Your task to perform on an android device: turn pop-ups on in chrome Image 0: 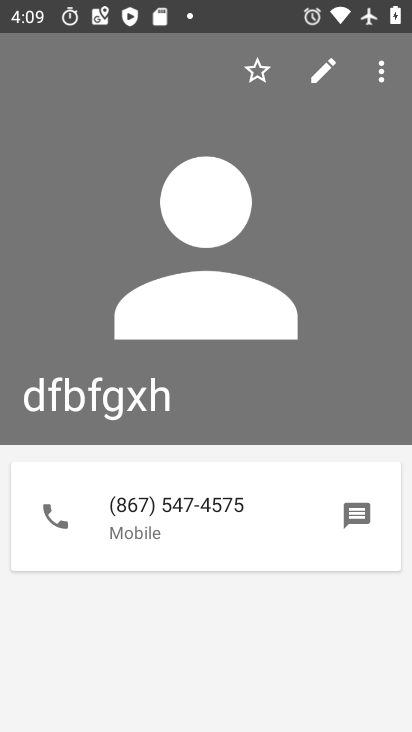
Step 0: press home button
Your task to perform on an android device: turn pop-ups on in chrome Image 1: 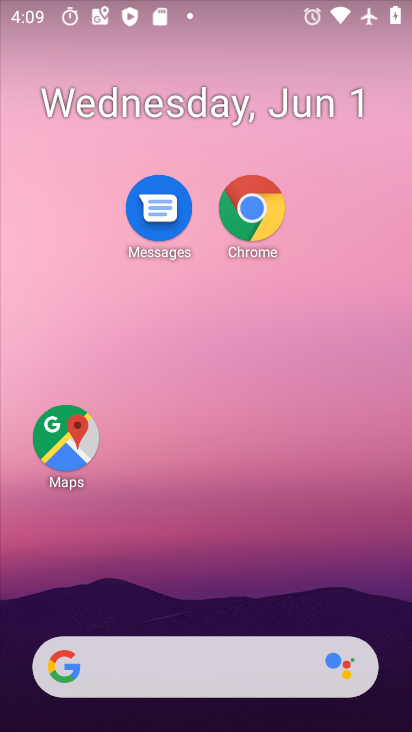
Step 1: click (238, 226)
Your task to perform on an android device: turn pop-ups on in chrome Image 2: 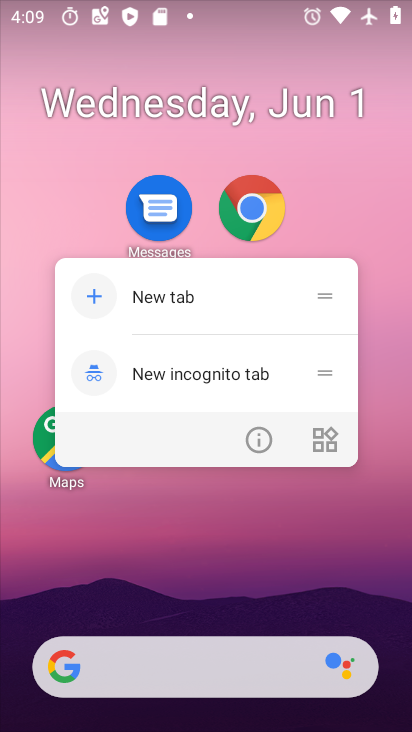
Step 2: click (269, 217)
Your task to perform on an android device: turn pop-ups on in chrome Image 3: 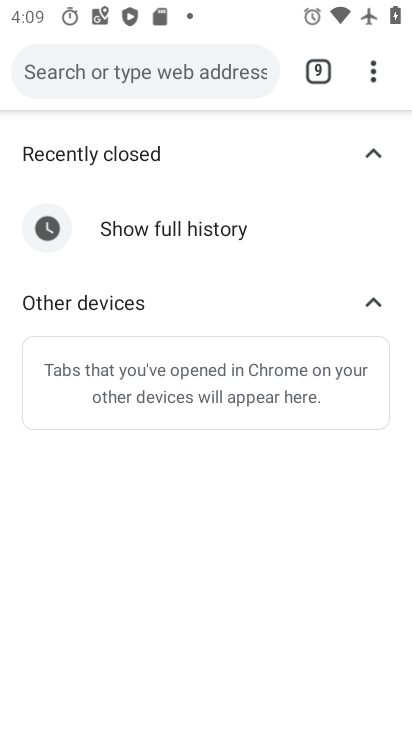
Step 3: drag from (371, 70) to (133, 580)
Your task to perform on an android device: turn pop-ups on in chrome Image 4: 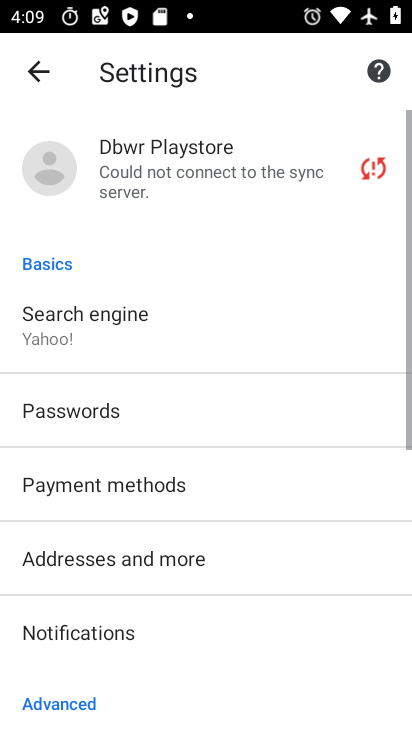
Step 4: drag from (208, 650) to (222, 285)
Your task to perform on an android device: turn pop-ups on in chrome Image 5: 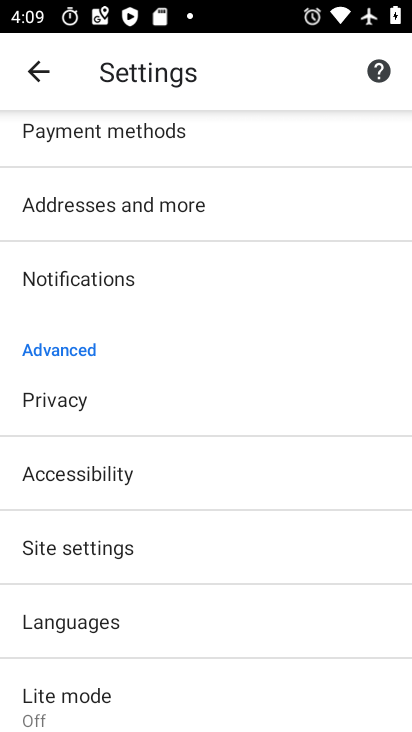
Step 5: click (129, 535)
Your task to perform on an android device: turn pop-ups on in chrome Image 6: 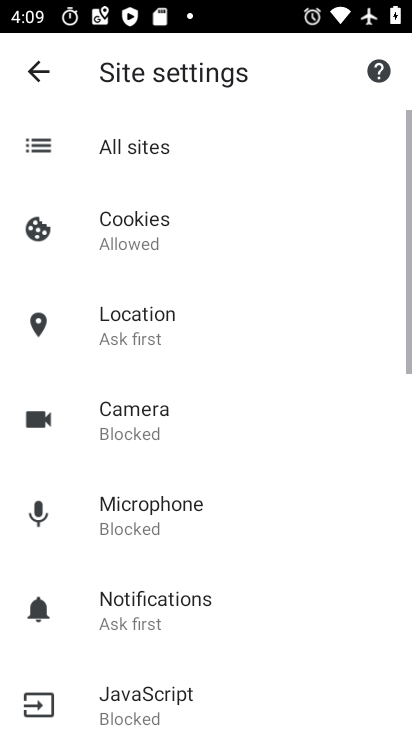
Step 6: drag from (168, 602) to (189, 263)
Your task to perform on an android device: turn pop-ups on in chrome Image 7: 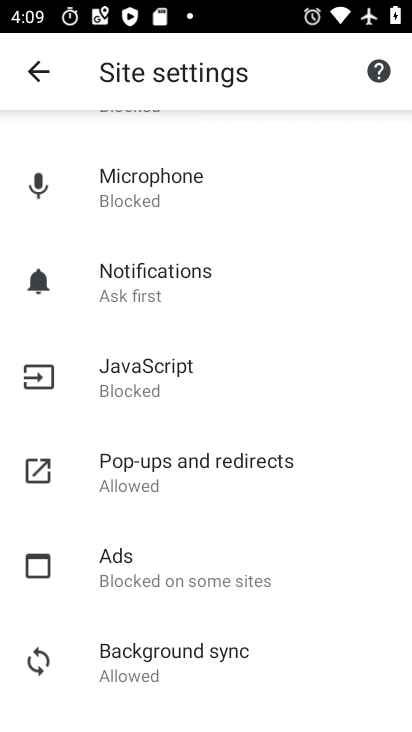
Step 7: click (215, 478)
Your task to perform on an android device: turn pop-ups on in chrome Image 8: 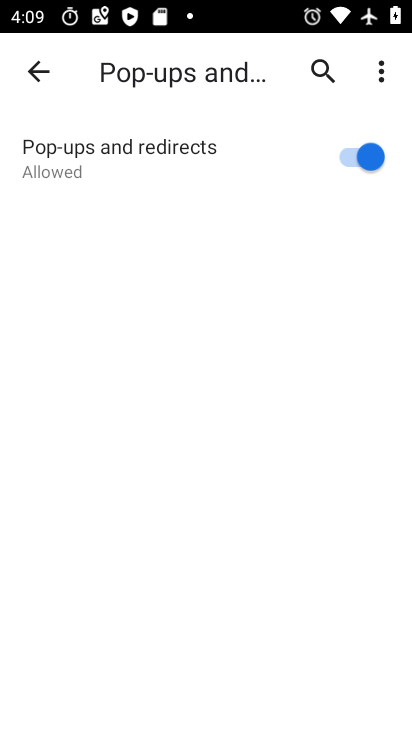
Step 8: click (349, 166)
Your task to perform on an android device: turn pop-ups on in chrome Image 9: 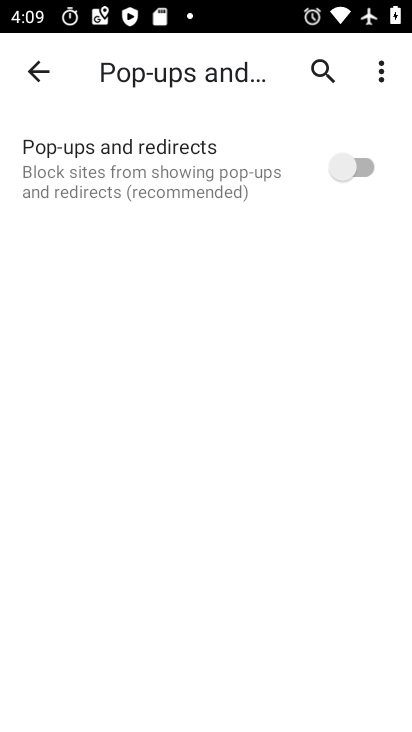
Step 9: click (350, 166)
Your task to perform on an android device: turn pop-ups on in chrome Image 10: 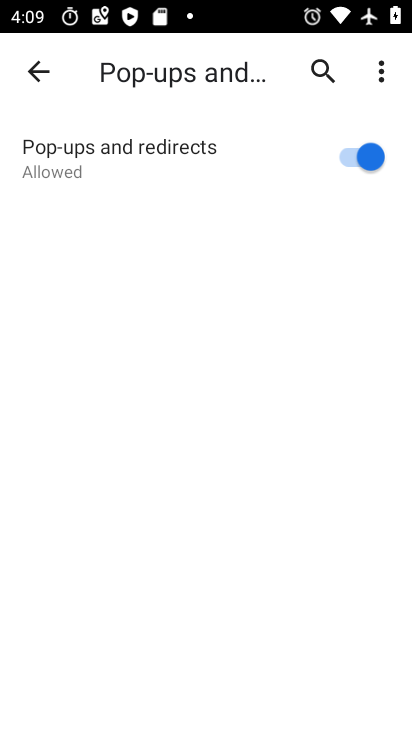
Step 10: task complete